Your task to perform on an android device: open chrome privacy settings Image 0: 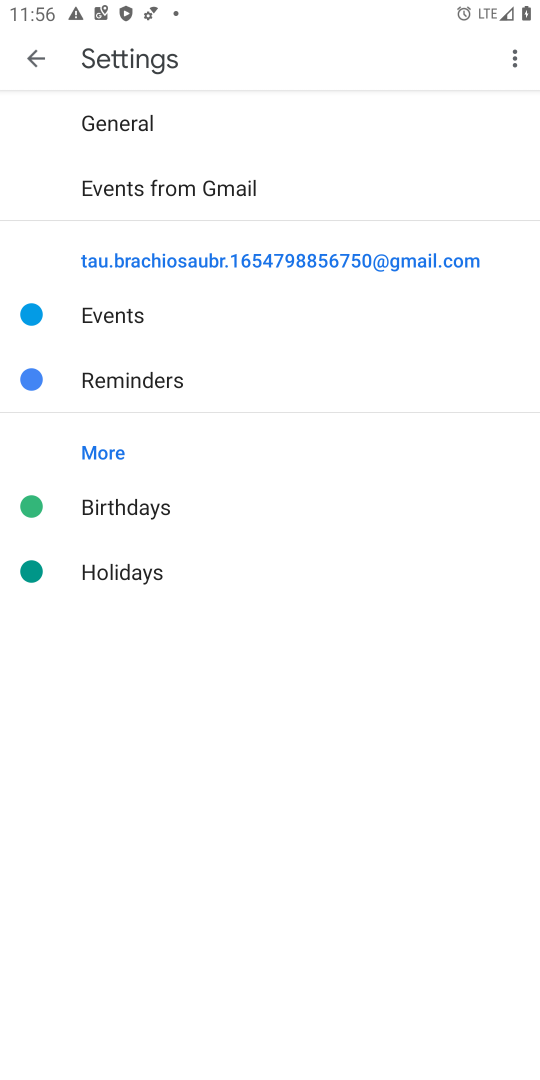
Step 0: press back button
Your task to perform on an android device: open chrome privacy settings Image 1: 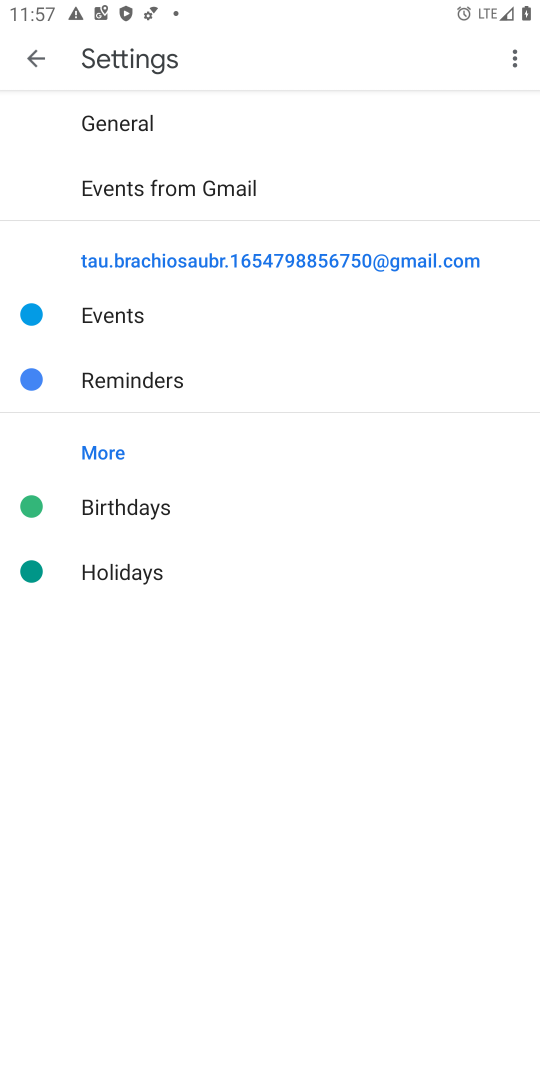
Step 1: press back button
Your task to perform on an android device: open chrome privacy settings Image 2: 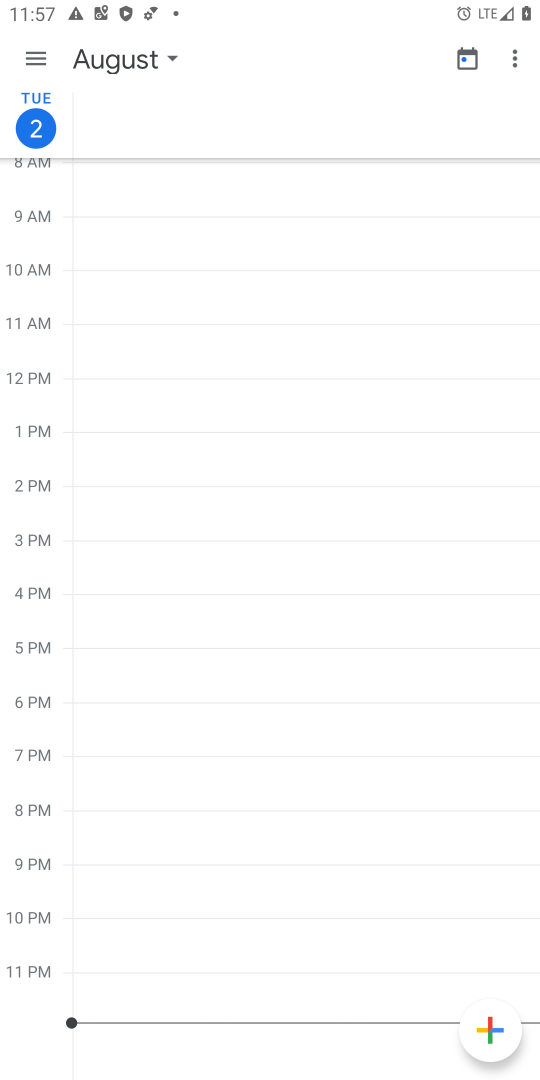
Step 2: press home button
Your task to perform on an android device: open chrome privacy settings Image 3: 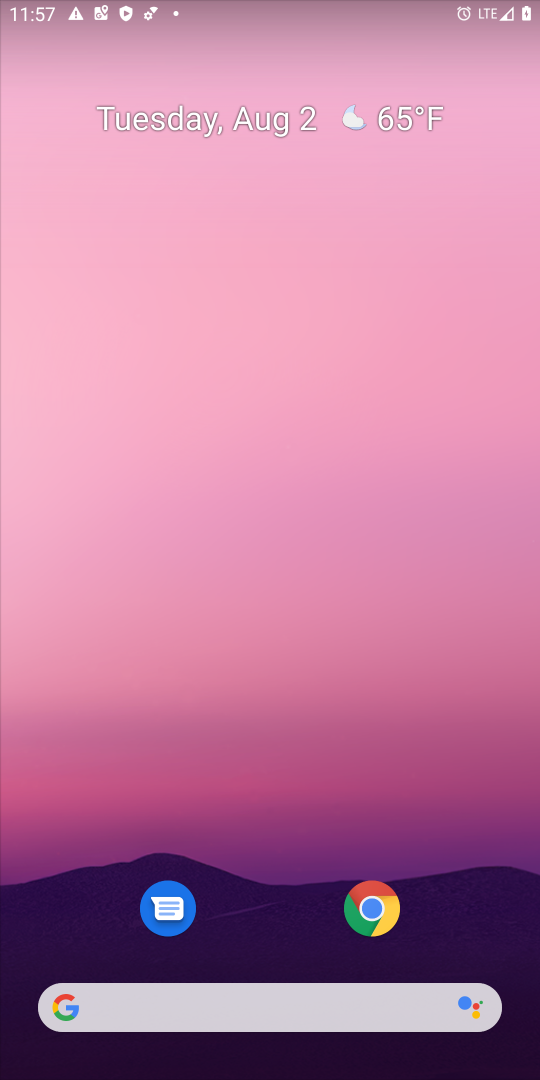
Step 3: drag from (284, 808) to (310, 162)
Your task to perform on an android device: open chrome privacy settings Image 4: 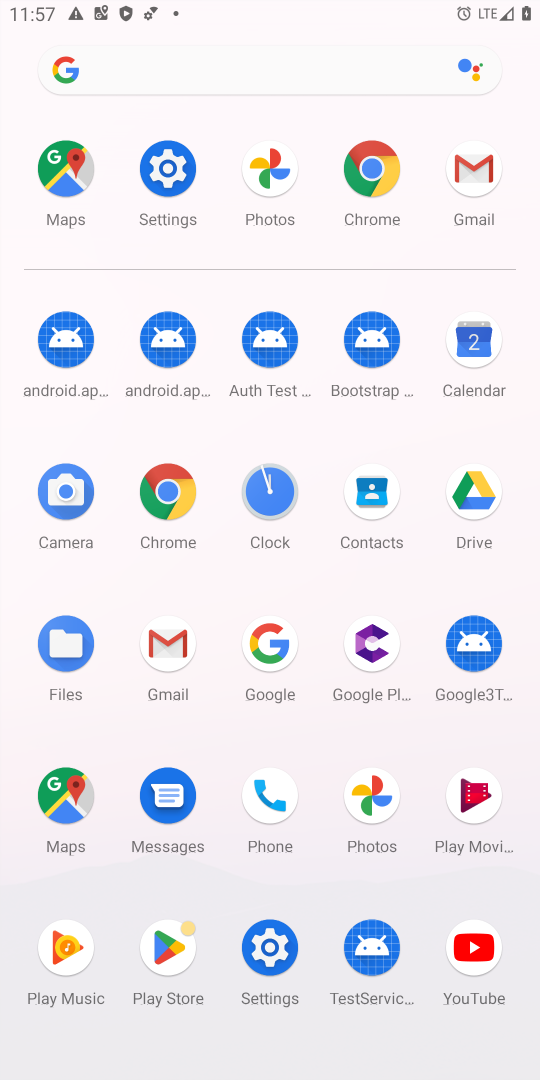
Step 4: click (158, 512)
Your task to perform on an android device: open chrome privacy settings Image 5: 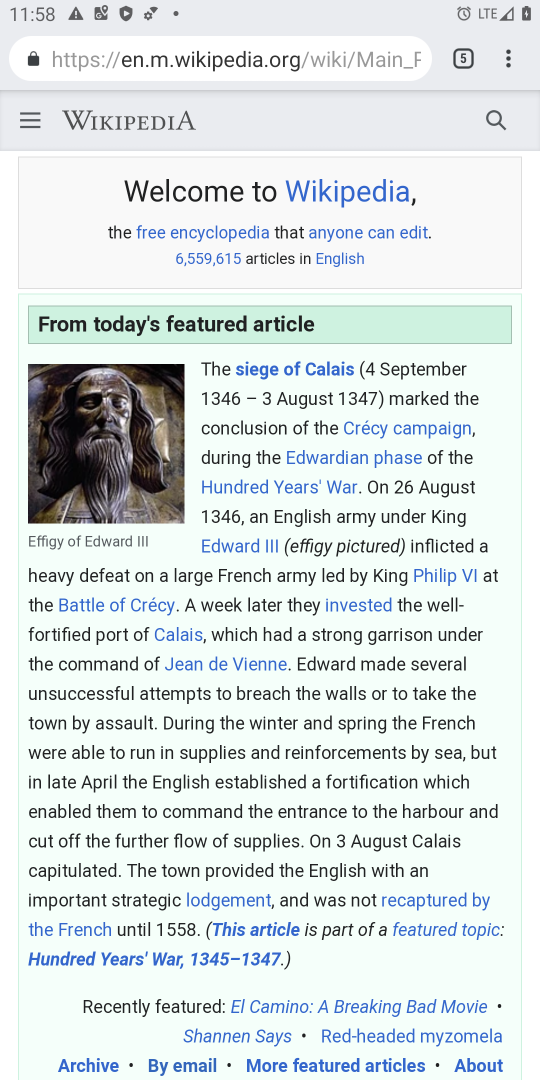
Step 5: click (504, 64)
Your task to perform on an android device: open chrome privacy settings Image 6: 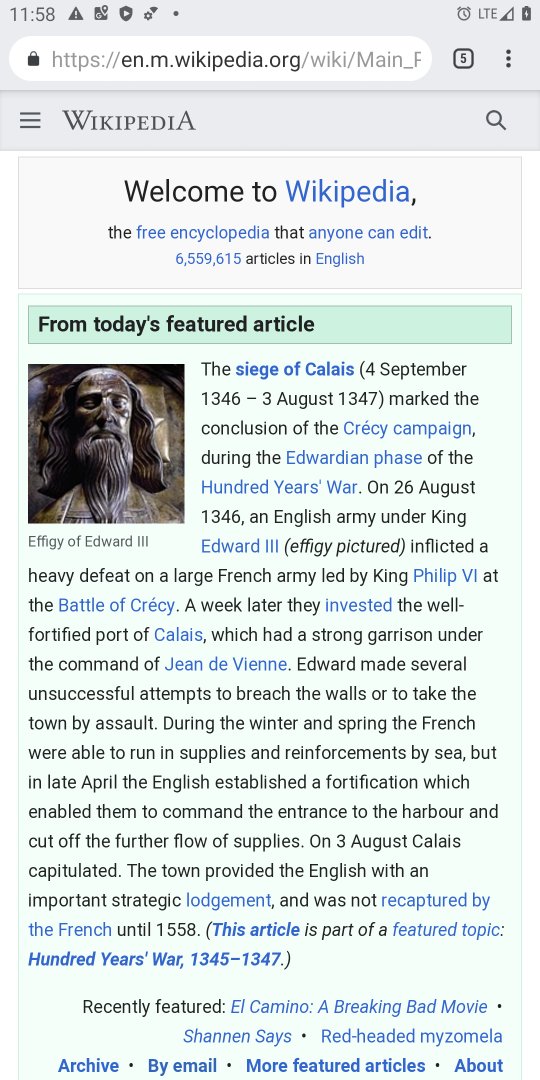
Step 6: click (507, 64)
Your task to perform on an android device: open chrome privacy settings Image 7: 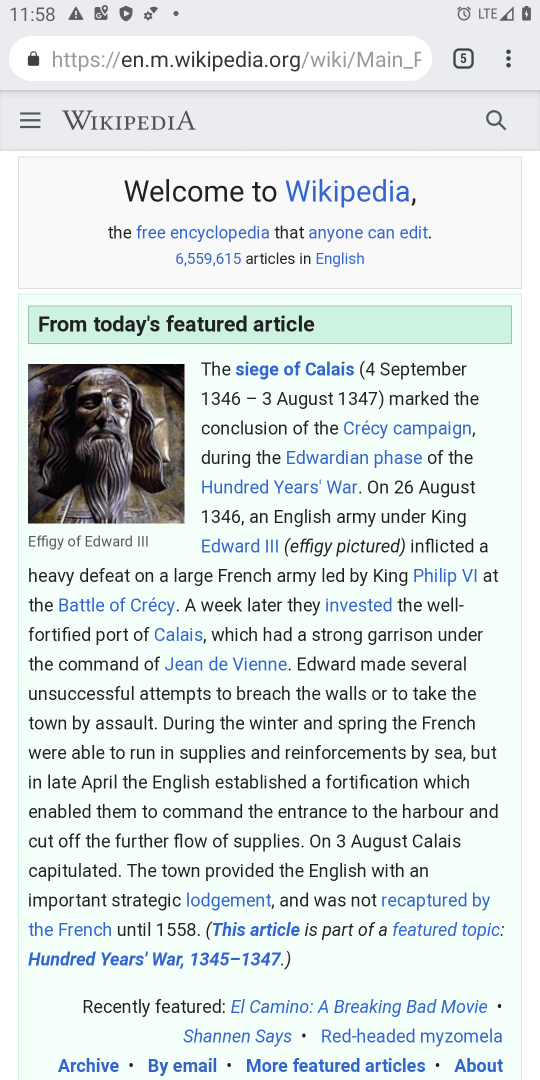
Step 7: click (509, 61)
Your task to perform on an android device: open chrome privacy settings Image 8: 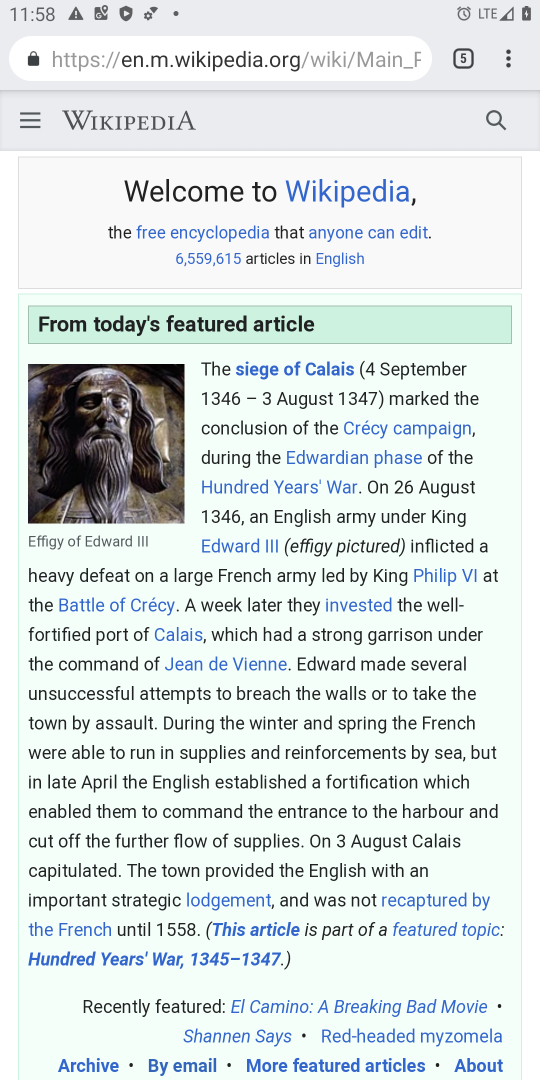
Step 8: click (511, 66)
Your task to perform on an android device: open chrome privacy settings Image 9: 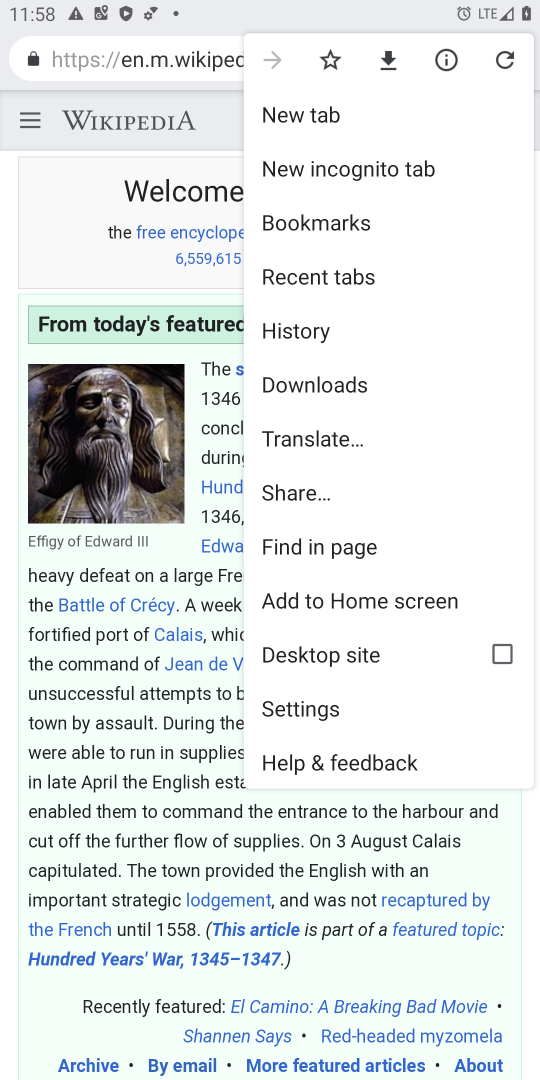
Step 9: click (338, 707)
Your task to perform on an android device: open chrome privacy settings Image 10: 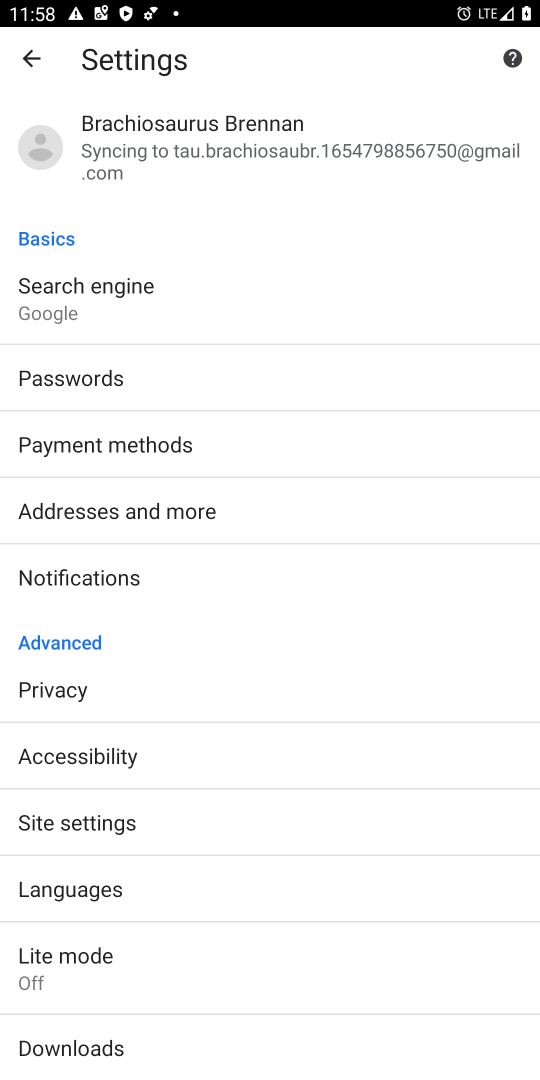
Step 10: click (174, 695)
Your task to perform on an android device: open chrome privacy settings Image 11: 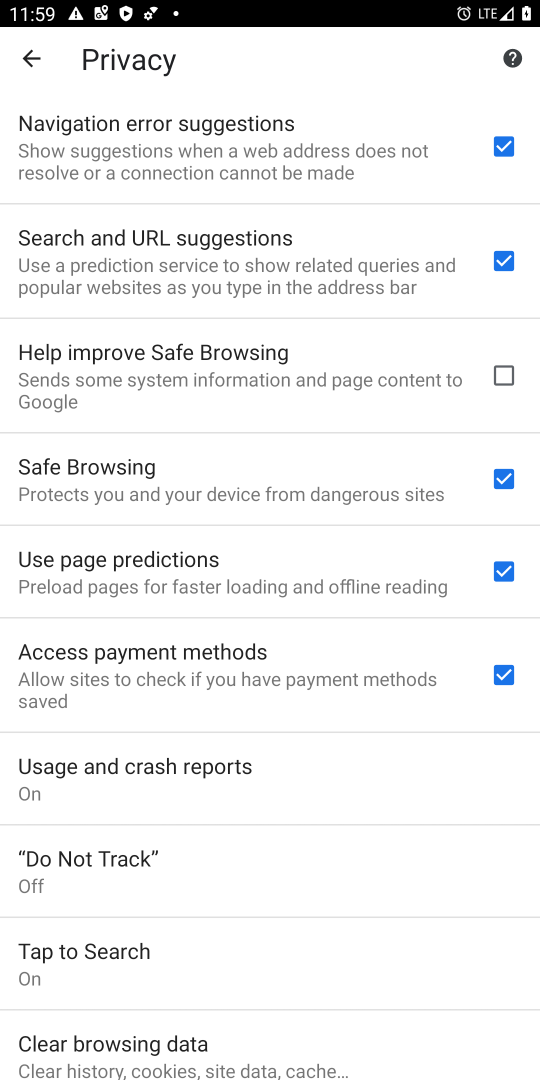
Step 11: task complete